Your task to perform on an android device: delete the emails in spam in the gmail app Image 0: 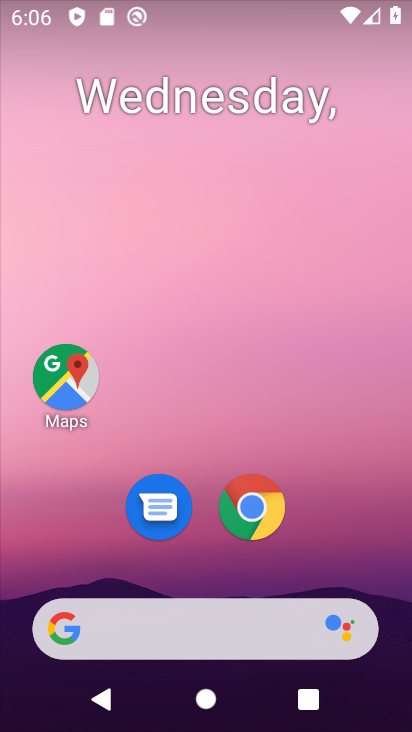
Step 0: drag from (336, 639) to (371, 57)
Your task to perform on an android device: delete the emails in spam in the gmail app Image 1: 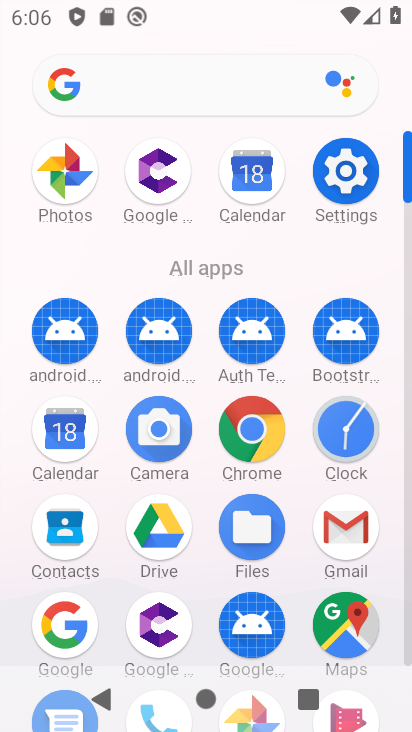
Step 1: click (327, 523)
Your task to perform on an android device: delete the emails in spam in the gmail app Image 2: 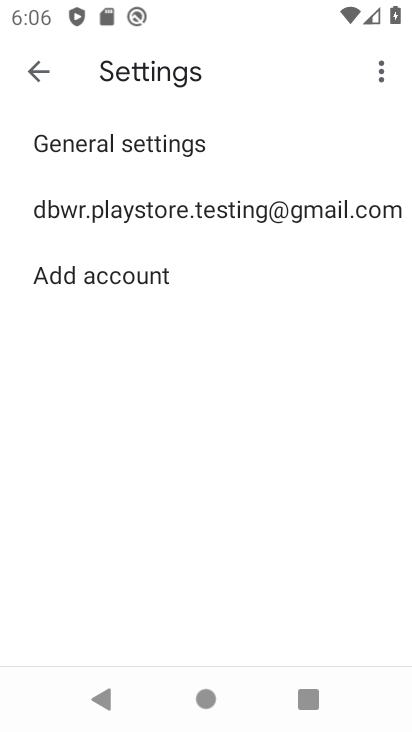
Step 2: press back button
Your task to perform on an android device: delete the emails in spam in the gmail app Image 3: 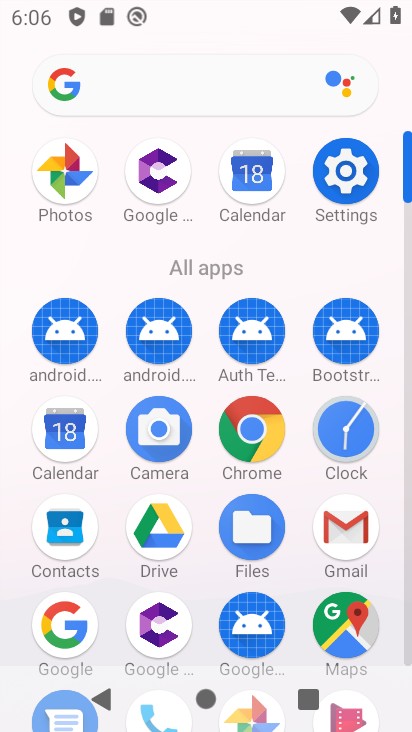
Step 3: click (350, 540)
Your task to perform on an android device: delete the emails in spam in the gmail app Image 4: 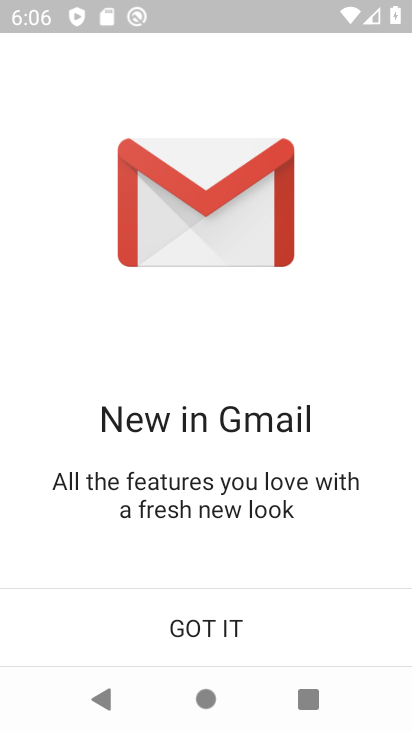
Step 4: click (240, 626)
Your task to perform on an android device: delete the emails in spam in the gmail app Image 5: 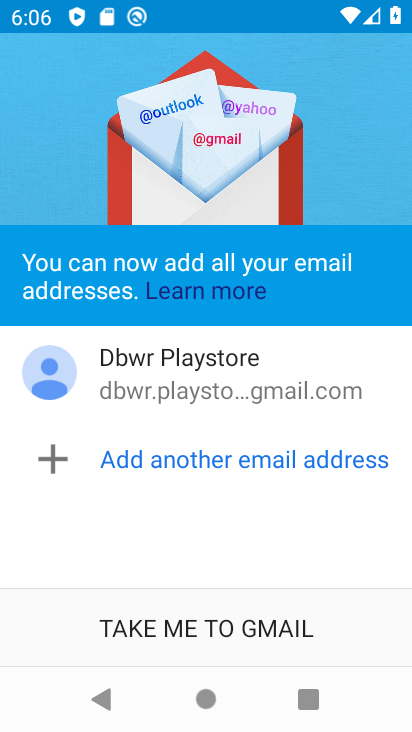
Step 5: click (240, 626)
Your task to perform on an android device: delete the emails in spam in the gmail app Image 6: 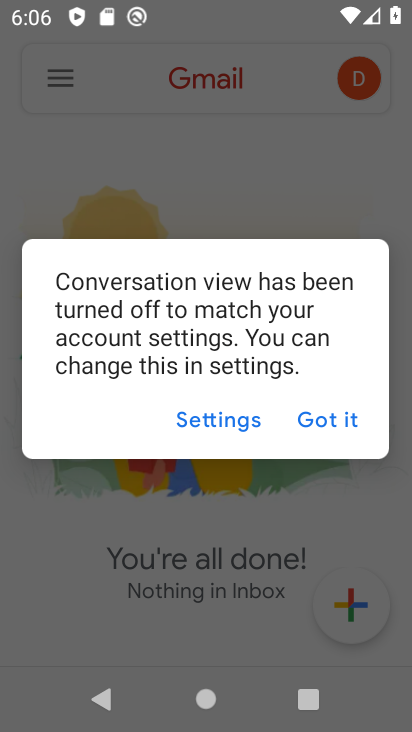
Step 6: click (300, 422)
Your task to perform on an android device: delete the emails in spam in the gmail app Image 7: 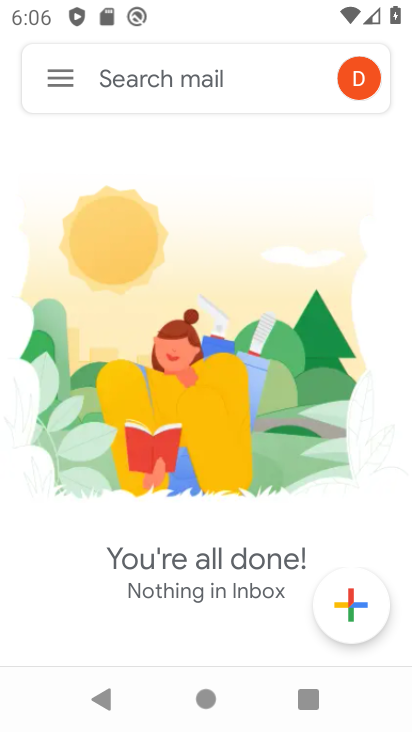
Step 7: click (76, 75)
Your task to perform on an android device: delete the emails in spam in the gmail app Image 8: 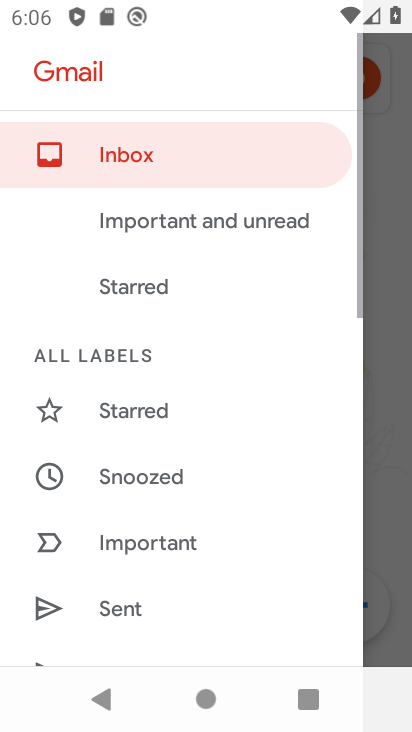
Step 8: drag from (207, 598) to (207, 166)
Your task to perform on an android device: delete the emails in spam in the gmail app Image 9: 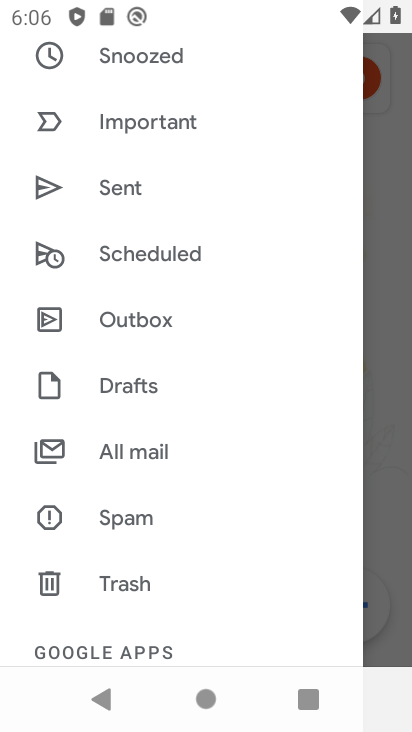
Step 9: click (131, 511)
Your task to perform on an android device: delete the emails in spam in the gmail app Image 10: 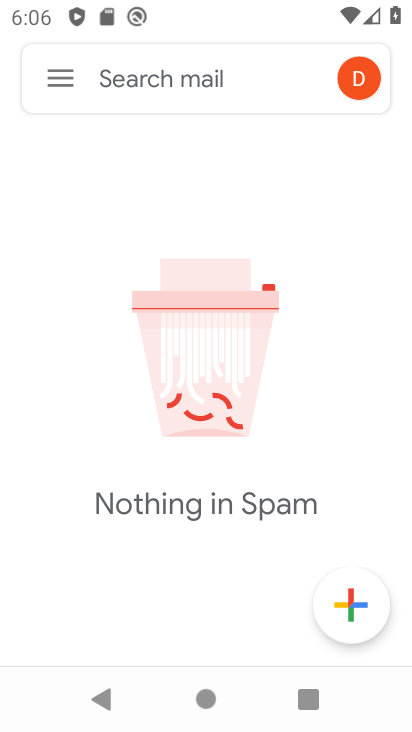
Step 10: task complete